Your task to perform on an android device: Go to Google Image 0: 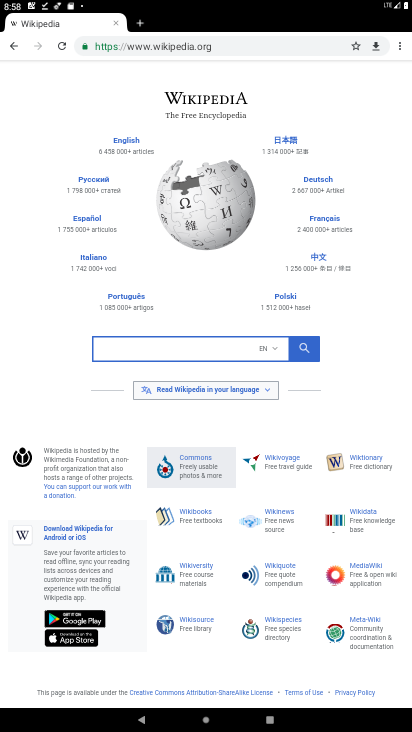
Step 0: press home button
Your task to perform on an android device: Go to Google Image 1: 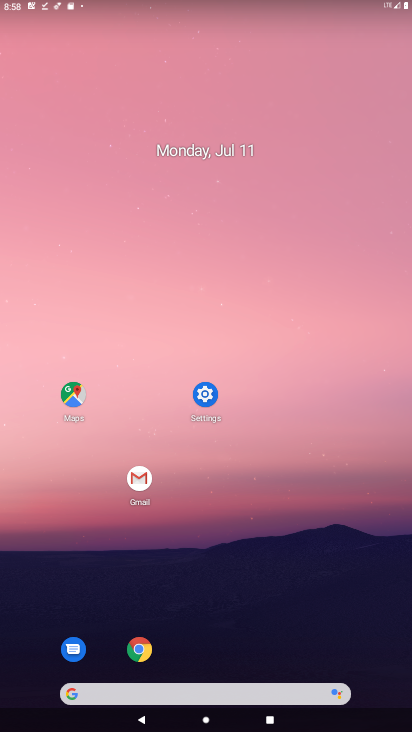
Step 1: drag from (392, 697) to (390, 118)
Your task to perform on an android device: Go to Google Image 2: 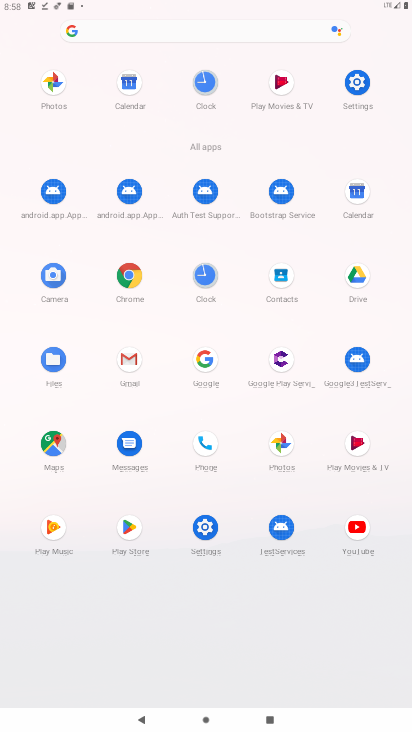
Step 2: click (199, 358)
Your task to perform on an android device: Go to Google Image 3: 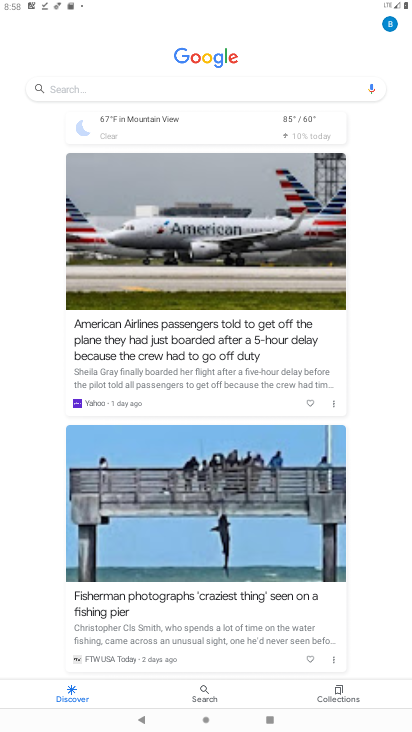
Step 3: task complete